Your task to perform on an android device: Open calendar and show me the fourth week of next month Image 0: 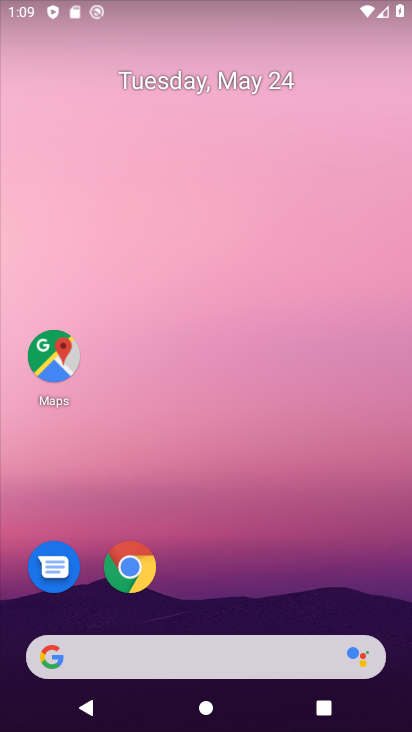
Step 0: drag from (210, 602) to (203, 1)
Your task to perform on an android device: Open calendar and show me the fourth week of next month Image 1: 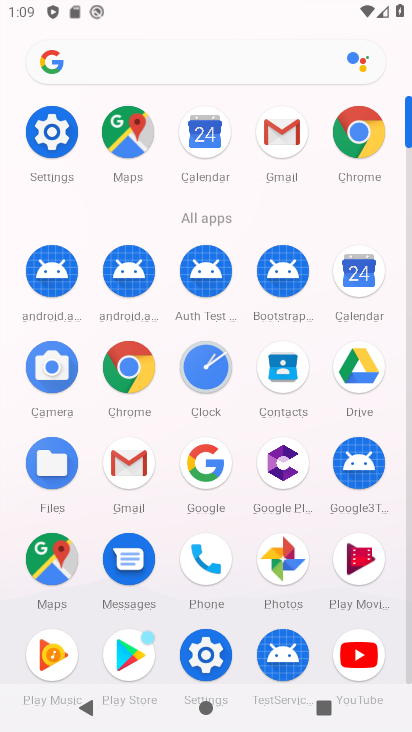
Step 1: click (367, 283)
Your task to perform on an android device: Open calendar and show me the fourth week of next month Image 2: 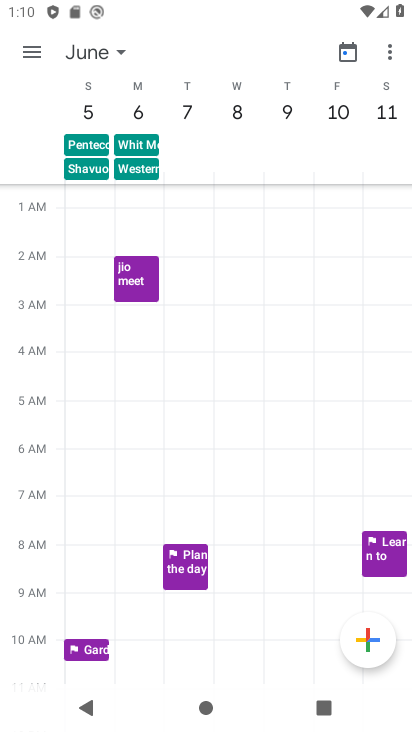
Step 2: task complete